Your task to perform on an android device: empty trash in the gmail app Image 0: 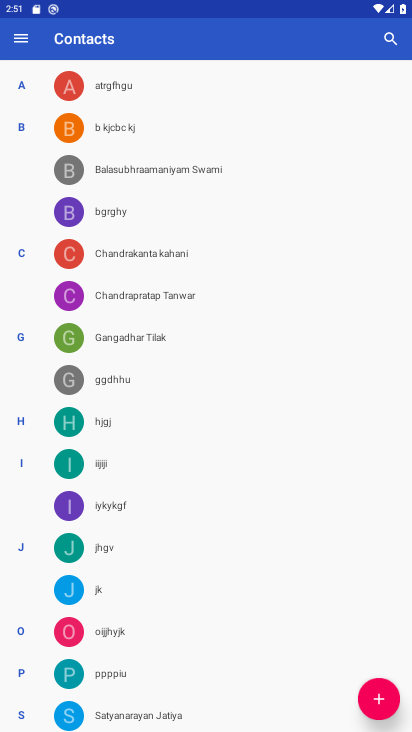
Step 0: press home button
Your task to perform on an android device: empty trash in the gmail app Image 1: 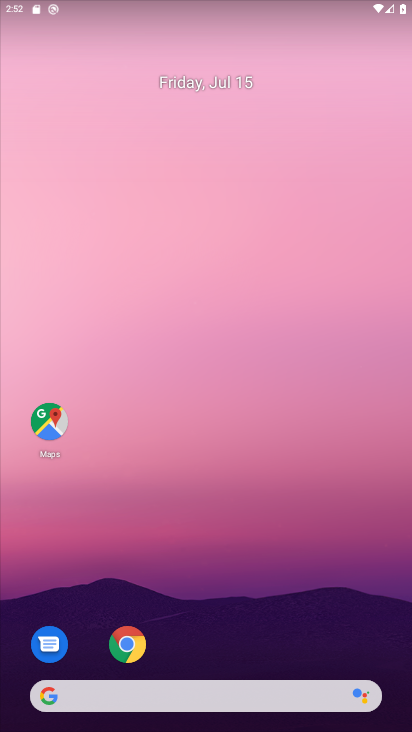
Step 1: drag from (188, 647) to (127, 69)
Your task to perform on an android device: empty trash in the gmail app Image 2: 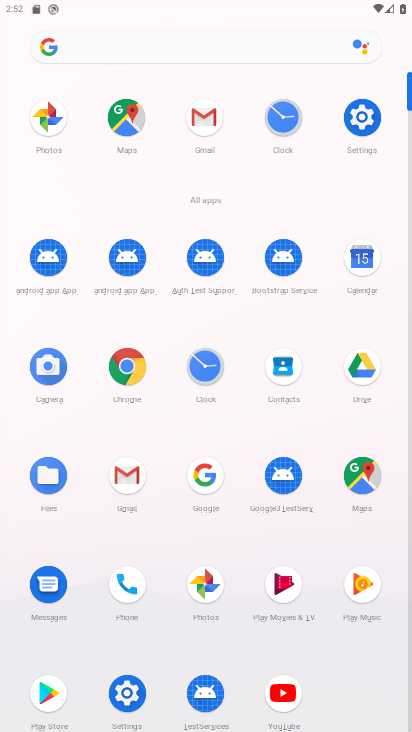
Step 2: click (193, 102)
Your task to perform on an android device: empty trash in the gmail app Image 3: 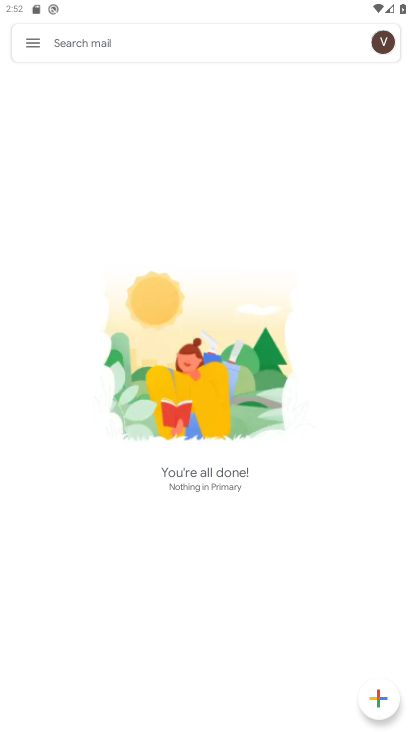
Step 3: click (34, 46)
Your task to perform on an android device: empty trash in the gmail app Image 4: 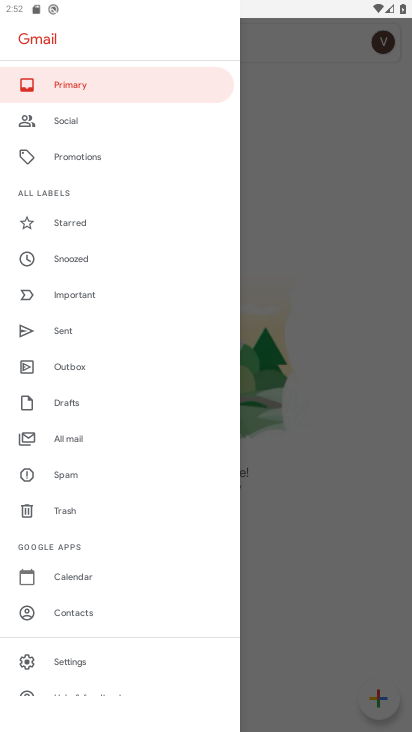
Step 4: click (73, 506)
Your task to perform on an android device: empty trash in the gmail app Image 5: 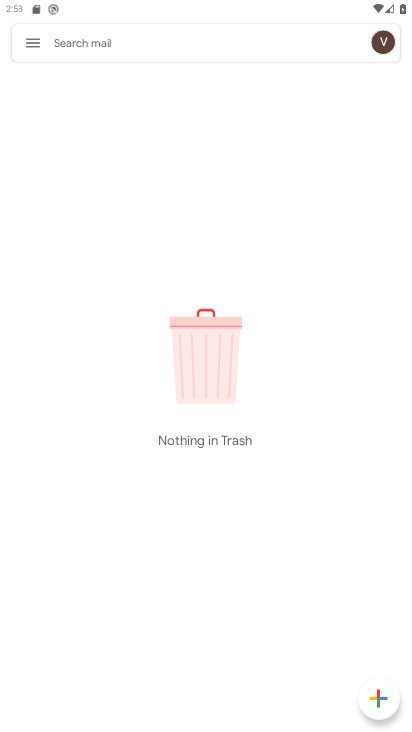
Step 5: task complete